Your task to perform on an android device: toggle improve location accuracy Image 0: 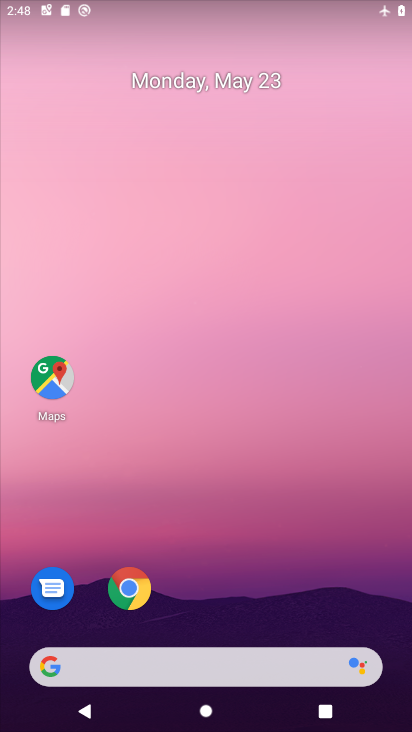
Step 0: drag from (208, 600) to (287, 69)
Your task to perform on an android device: toggle improve location accuracy Image 1: 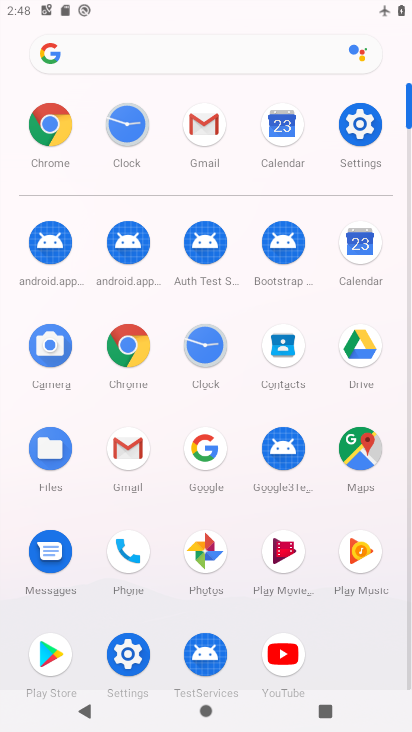
Step 1: drag from (270, 555) to (319, 304)
Your task to perform on an android device: toggle improve location accuracy Image 2: 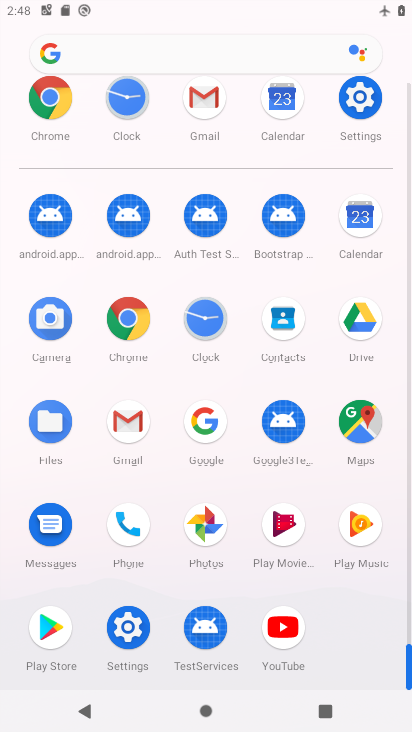
Step 2: click (363, 84)
Your task to perform on an android device: toggle improve location accuracy Image 3: 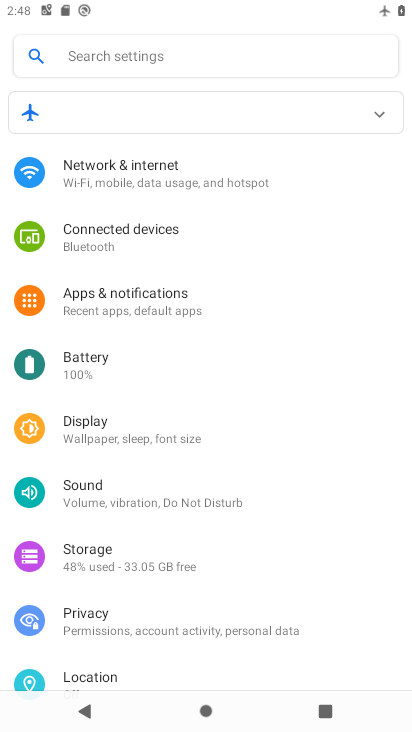
Step 3: drag from (166, 582) to (285, 105)
Your task to perform on an android device: toggle improve location accuracy Image 4: 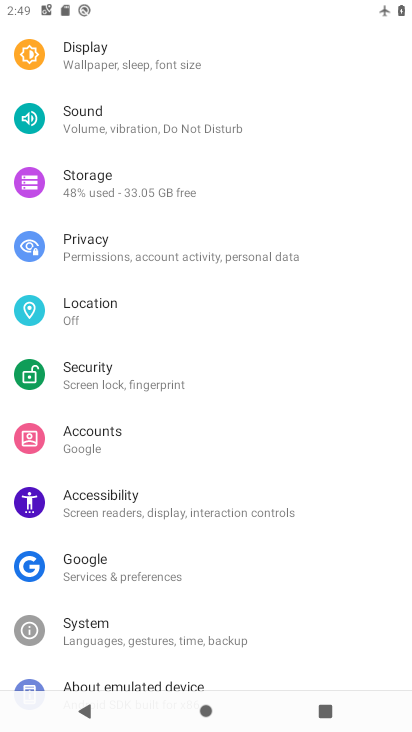
Step 4: click (113, 305)
Your task to perform on an android device: toggle improve location accuracy Image 5: 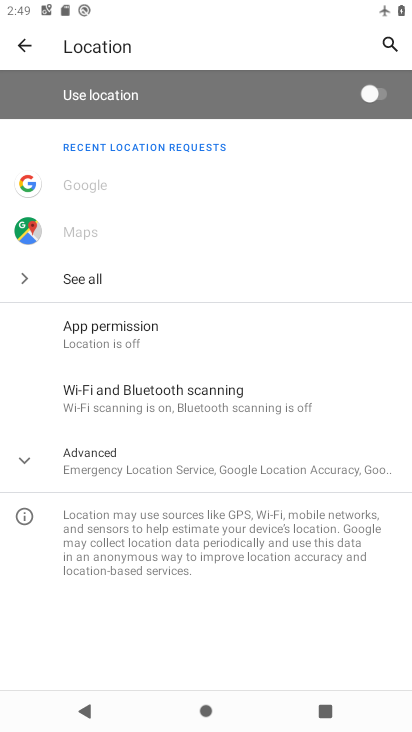
Step 5: click (110, 472)
Your task to perform on an android device: toggle improve location accuracy Image 6: 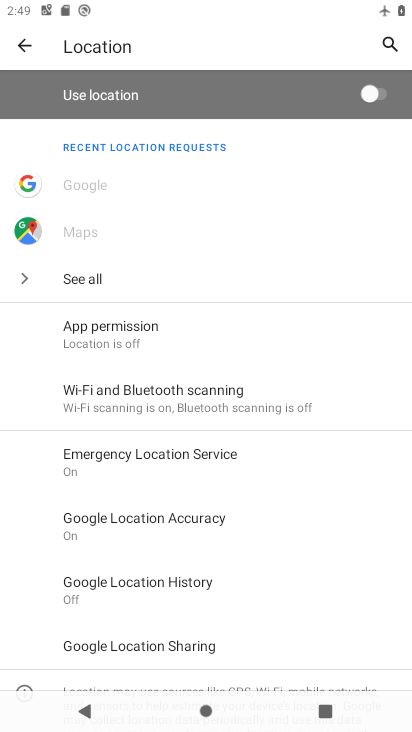
Step 6: click (151, 536)
Your task to perform on an android device: toggle improve location accuracy Image 7: 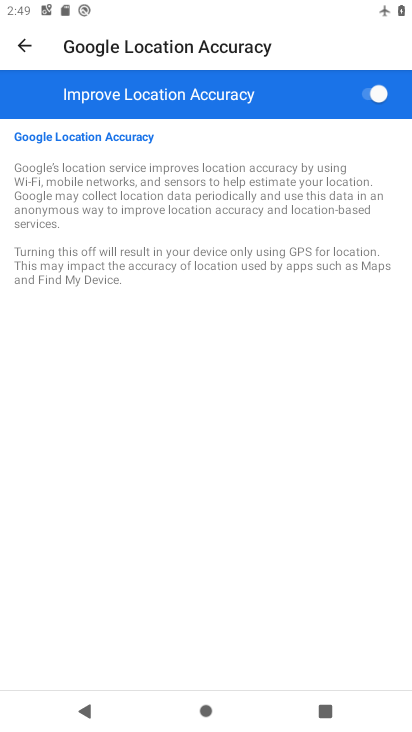
Step 7: click (357, 92)
Your task to perform on an android device: toggle improve location accuracy Image 8: 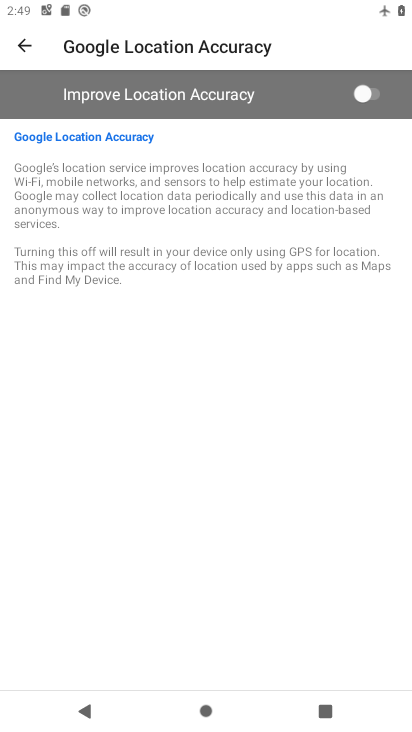
Step 8: task complete